Your task to perform on an android device: check android version Image 0: 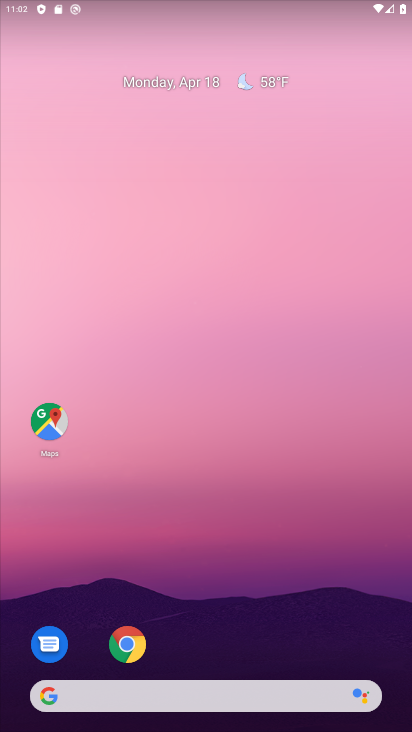
Step 0: drag from (258, 509) to (295, 264)
Your task to perform on an android device: check android version Image 1: 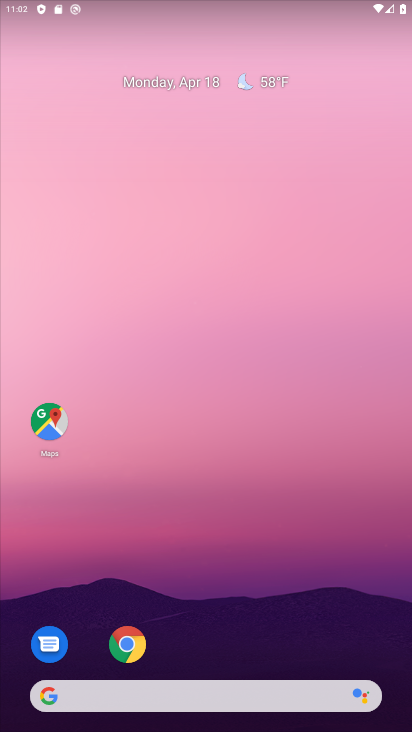
Step 1: drag from (214, 584) to (328, 4)
Your task to perform on an android device: check android version Image 2: 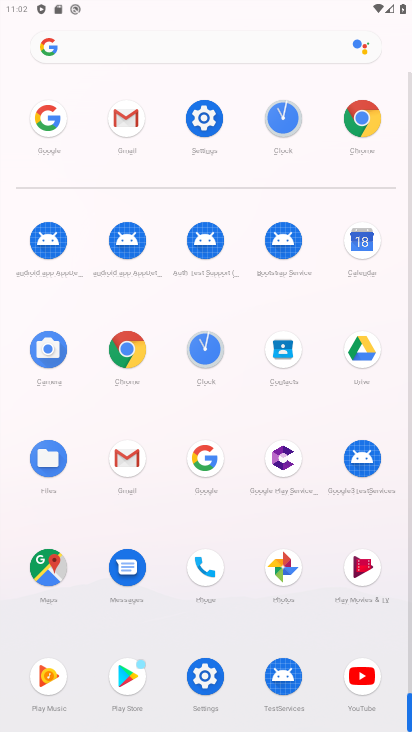
Step 2: click (200, 113)
Your task to perform on an android device: check android version Image 3: 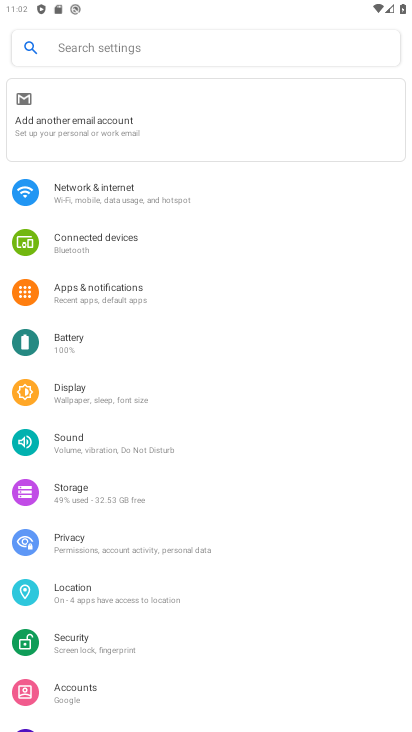
Step 3: drag from (128, 669) to (228, 215)
Your task to perform on an android device: check android version Image 4: 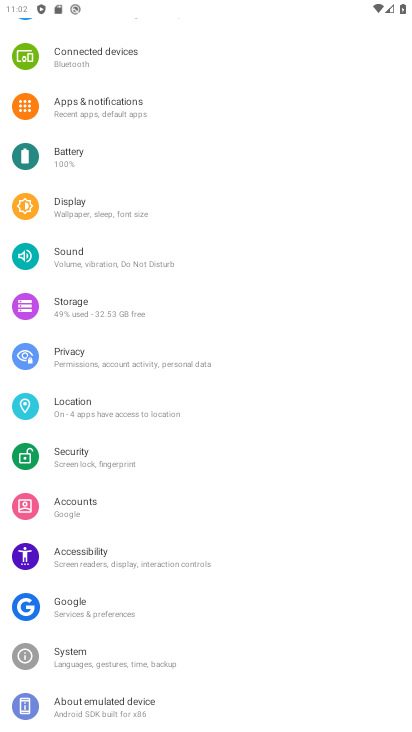
Step 4: click (150, 703)
Your task to perform on an android device: check android version Image 5: 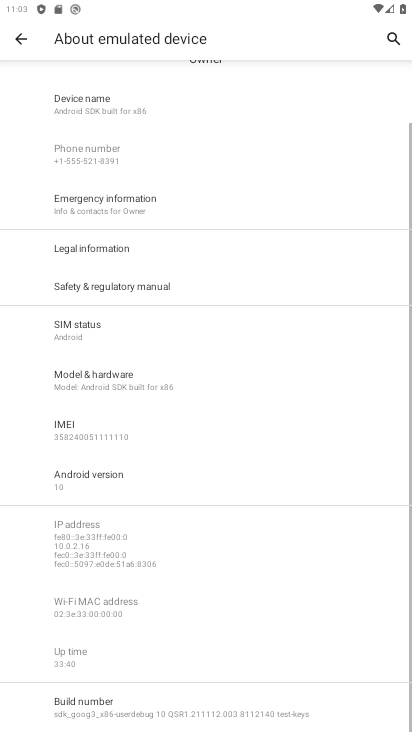
Step 5: click (99, 480)
Your task to perform on an android device: check android version Image 6: 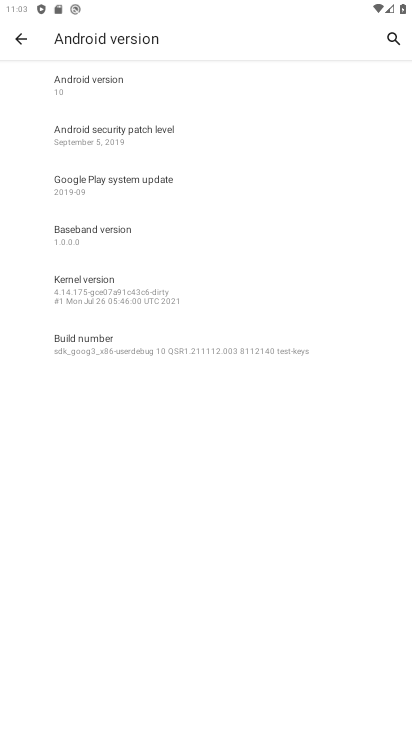
Step 6: task complete